Your task to perform on an android device: Open network settings Image 0: 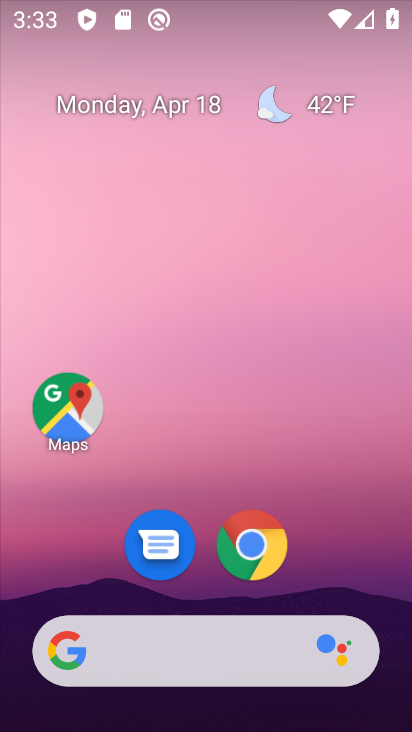
Step 0: drag from (336, 577) to (355, 69)
Your task to perform on an android device: Open network settings Image 1: 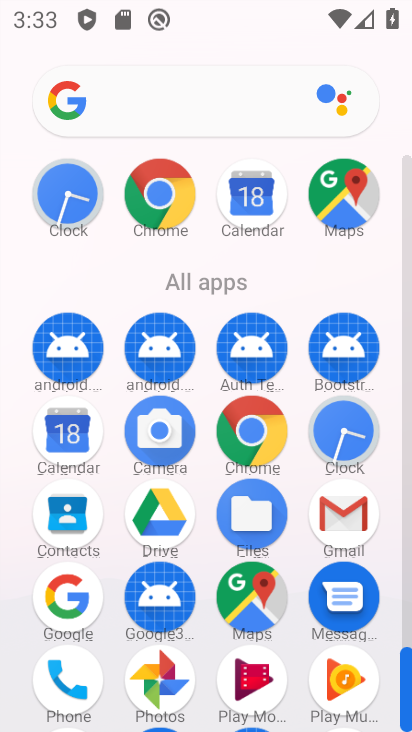
Step 1: drag from (202, 510) to (198, 223)
Your task to perform on an android device: Open network settings Image 2: 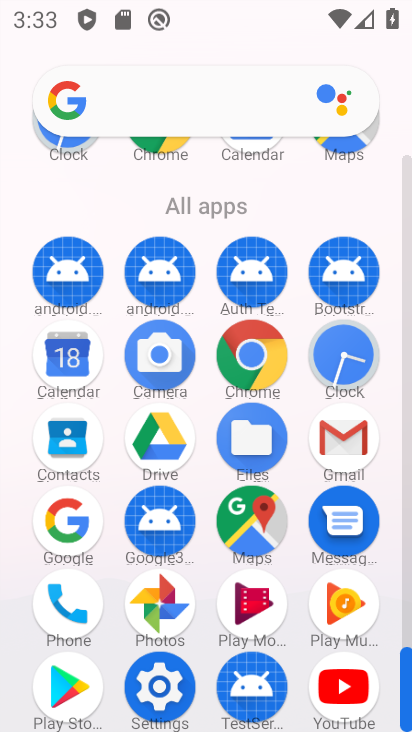
Step 2: click (161, 689)
Your task to perform on an android device: Open network settings Image 3: 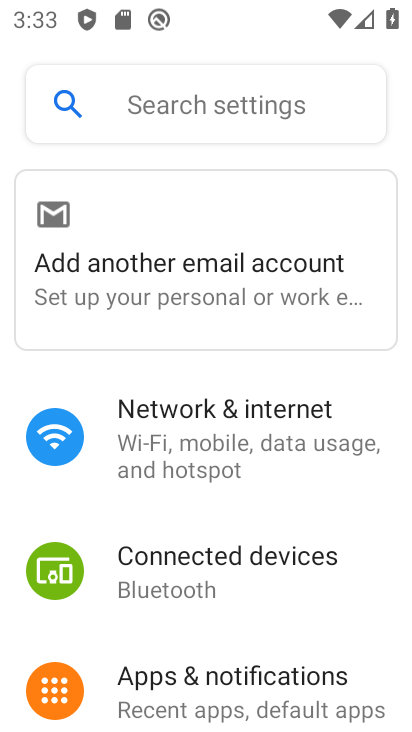
Step 3: drag from (372, 613) to (386, 355)
Your task to perform on an android device: Open network settings Image 4: 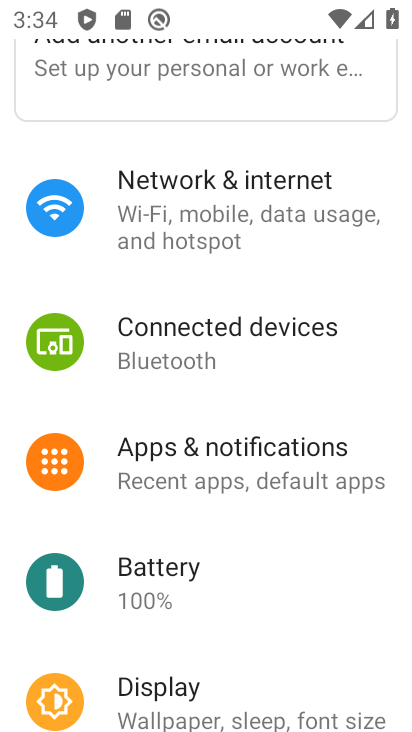
Step 4: drag from (358, 600) to (368, 202)
Your task to perform on an android device: Open network settings Image 5: 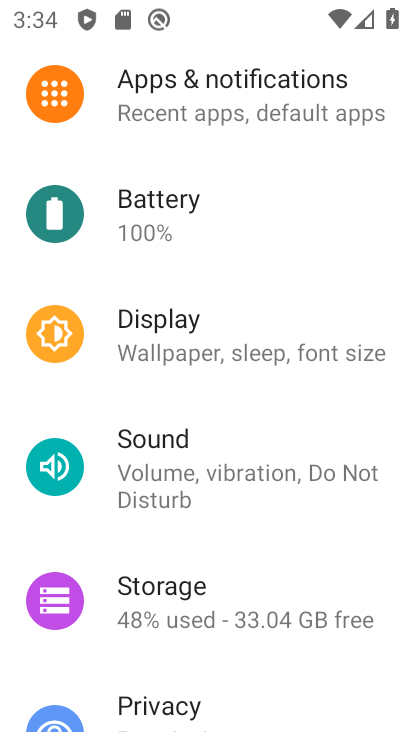
Step 5: drag from (370, 664) to (390, 268)
Your task to perform on an android device: Open network settings Image 6: 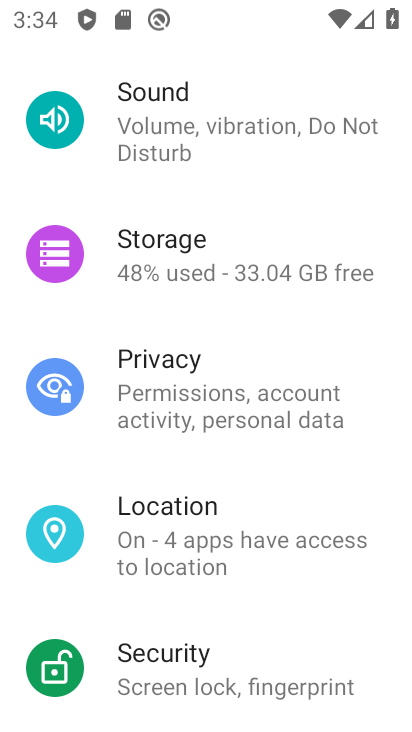
Step 6: drag from (348, 611) to (385, 186)
Your task to perform on an android device: Open network settings Image 7: 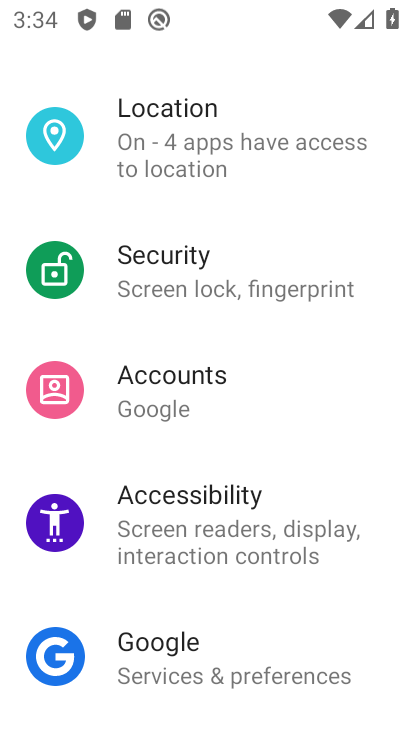
Step 7: drag from (391, 125) to (346, 451)
Your task to perform on an android device: Open network settings Image 8: 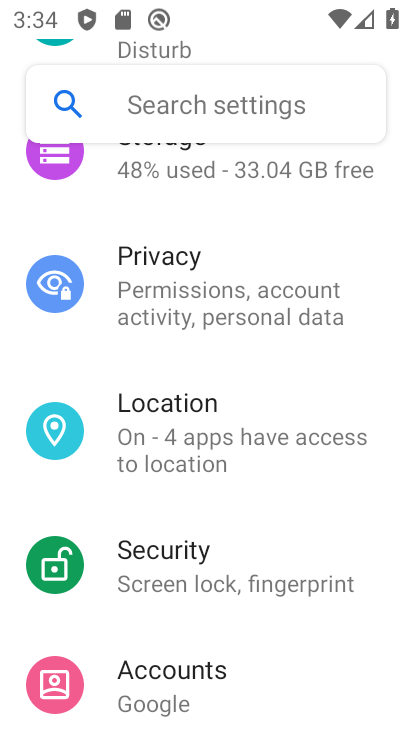
Step 8: drag from (381, 234) to (361, 539)
Your task to perform on an android device: Open network settings Image 9: 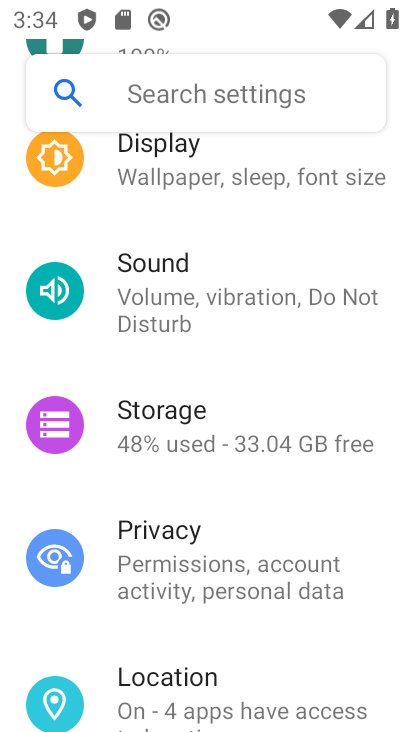
Step 9: drag from (377, 215) to (373, 495)
Your task to perform on an android device: Open network settings Image 10: 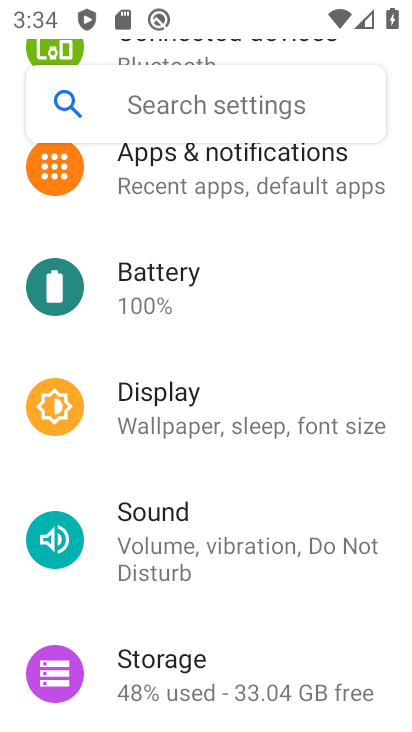
Step 10: drag from (392, 155) to (379, 448)
Your task to perform on an android device: Open network settings Image 11: 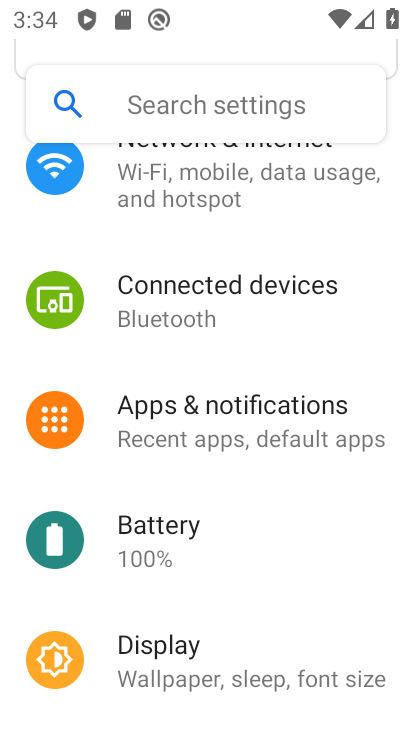
Step 11: click (291, 152)
Your task to perform on an android device: Open network settings Image 12: 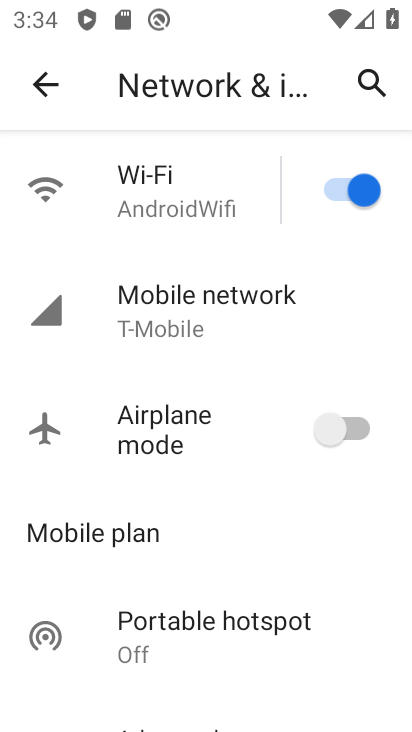
Step 12: task complete